Your task to perform on an android device: Open Wikipedia Image 0: 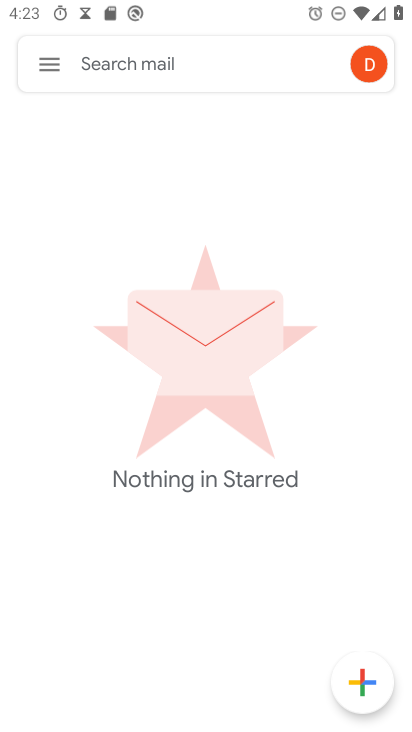
Step 0: press home button
Your task to perform on an android device: Open Wikipedia Image 1: 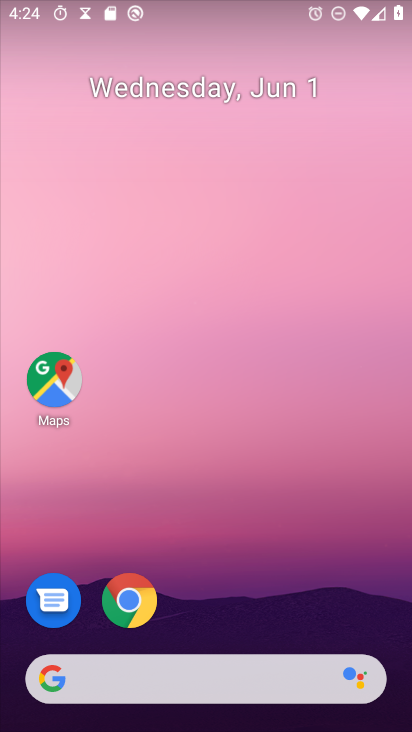
Step 1: click (132, 610)
Your task to perform on an android device: Open Wikipedia Image 2: 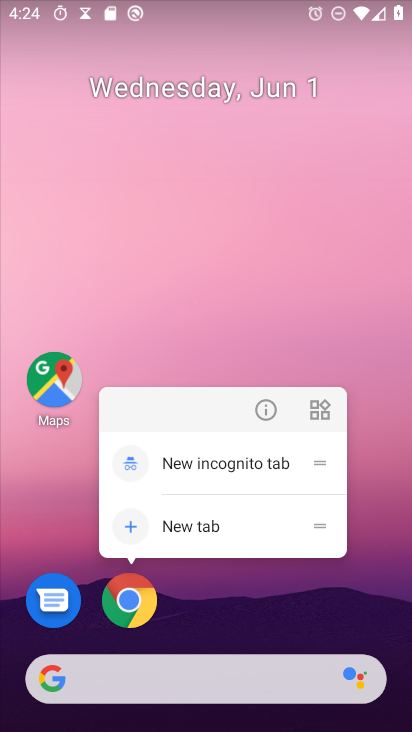
Step 2: click (151, 598)
Your task to perform on an android device: Open Wikipedia Image 3: 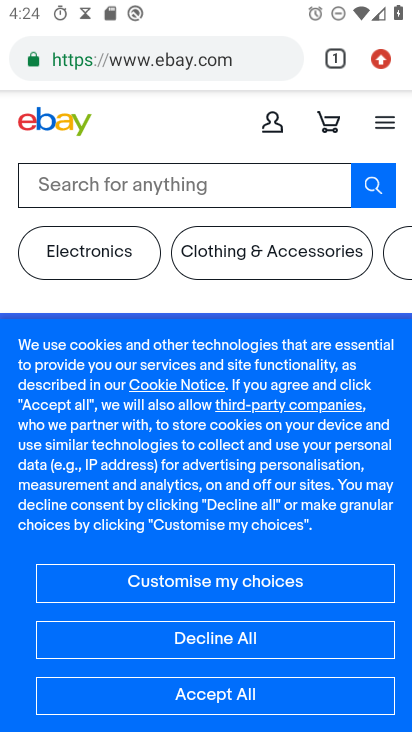
Step 3: press back button
Your task to perform on an android device: Open Wikipedia Image 4: 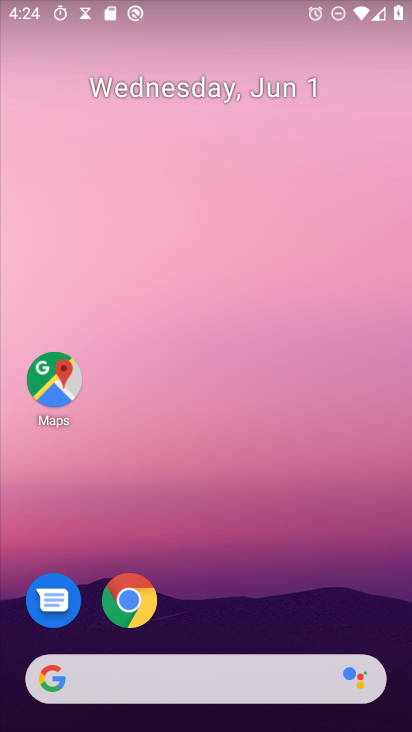
Step 4: click (126, 618)
Your task to perform on an android device: Open Wikipedia Image 5: 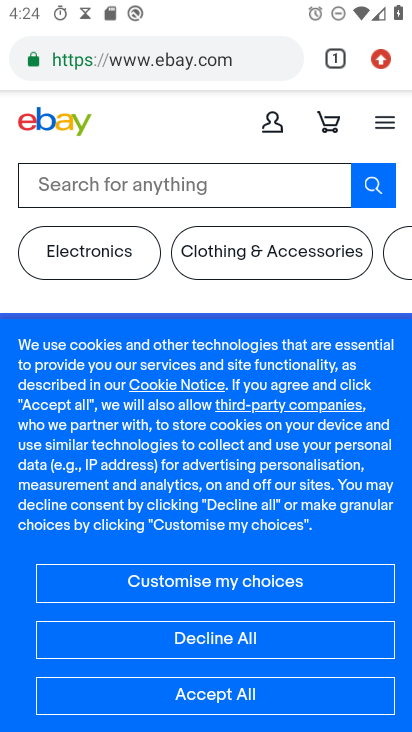
Step 5: click (331, 69)
Your task to perform on an android device: Open Wikipedia Image 6: 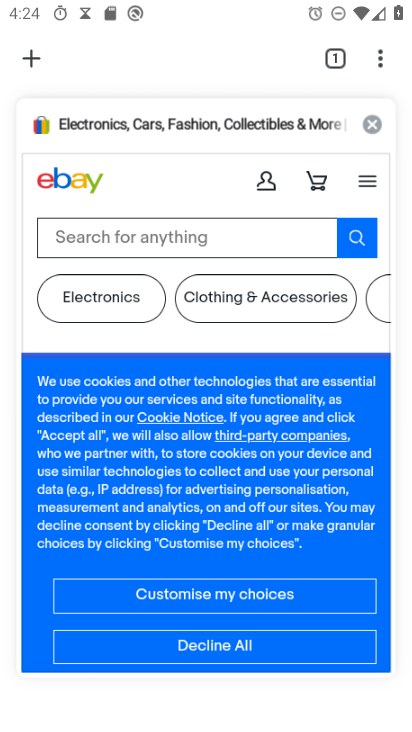
Step 6: click (24, 66)
Your task to perform on an android device: Open Wikipedia Image 7: 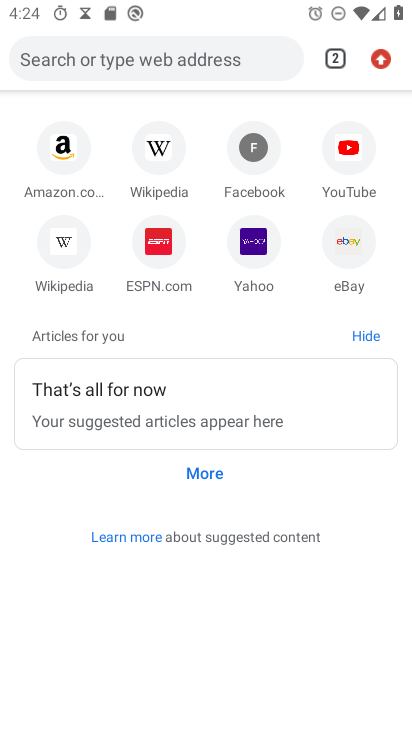
Step 7: click (158, 170)
Your task to perform on an android device: Open Wikipedia Image 8: 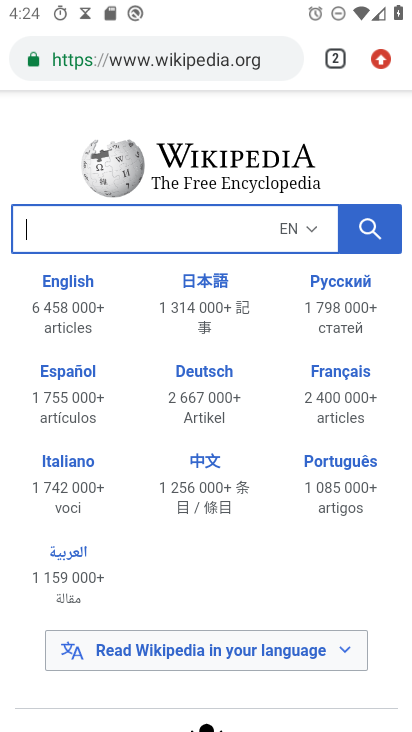
Step 8: click (335, 57)
Your task to perform on an android device: Open Wikipedia Image 9: 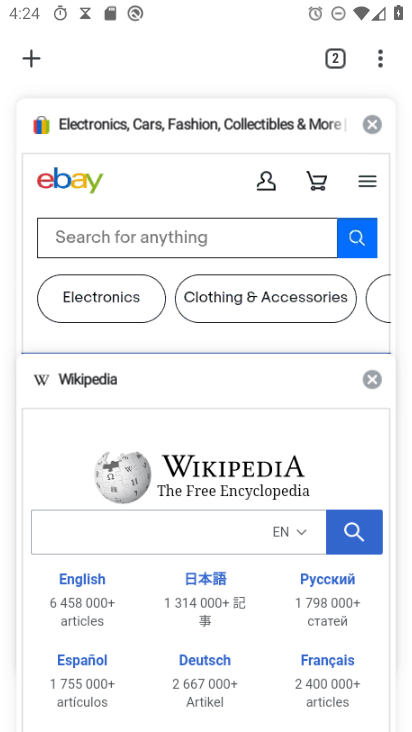
Step 9: click (378, 123)
Your task to perform on an android device: Open Wikipedia Image 10: 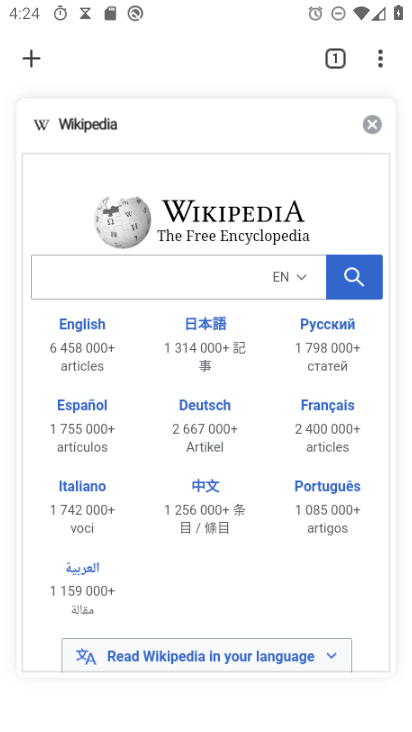
Step 10: click (245, 129)
Your task to perform on an android device: Open Wikipedia Image 11: 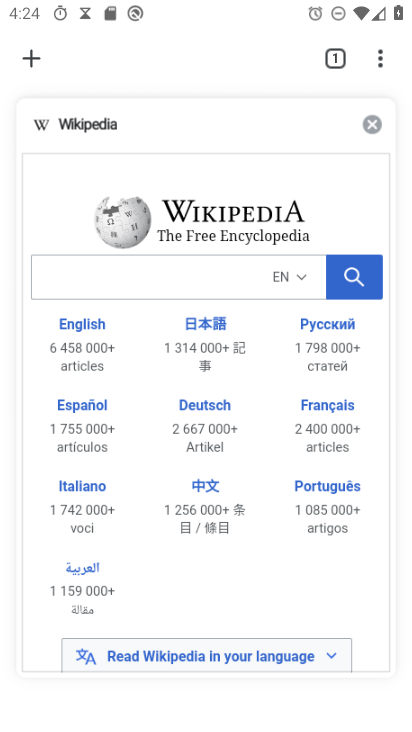
Step 11: click (60, 116)
Your task to perform on an android device: Open Wikipedia Image 12: 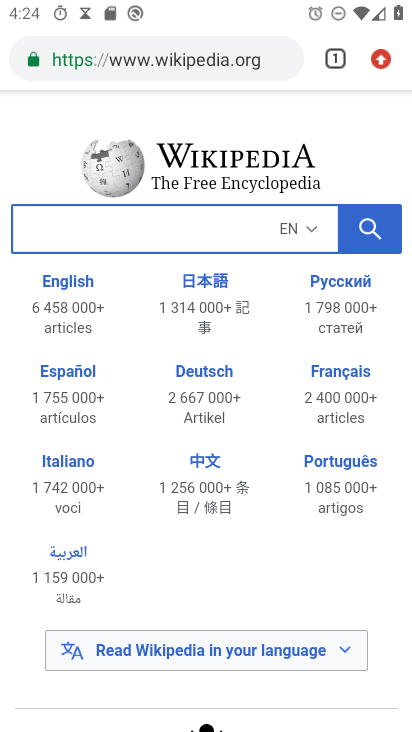
Step 12: task complete